Your task to perform on an android device: turn off translation in the chrome app Image 0: 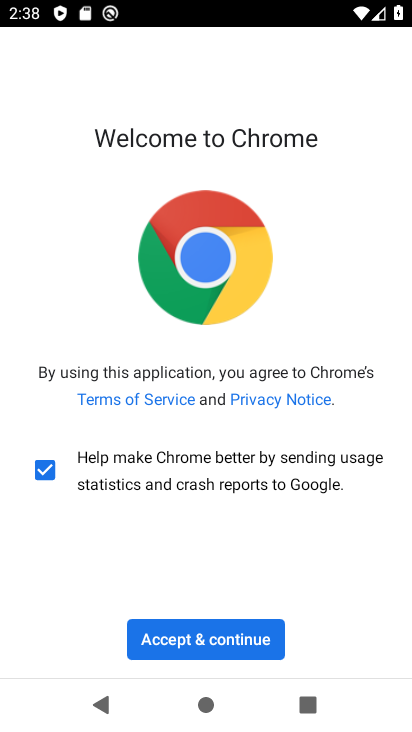
Step 0: click (267, 637)
Your task to perform on an android device: turn off translation in the chrome app Image 1: 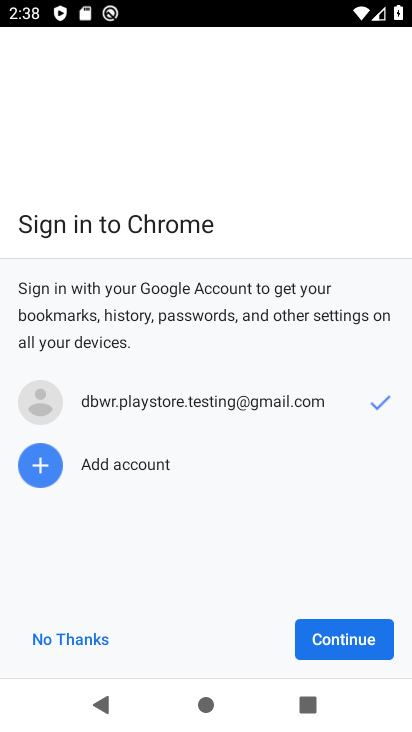
Step 1: click (331, 634)
Your task to perform on an android device: turn off translation in the chrome app Image 2: 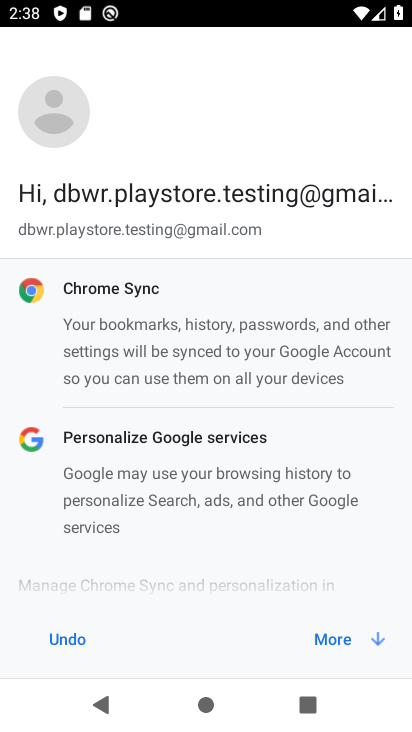
Step 2: click (331, 634)
Your task to perform on an android device: turn off translation in the chrome app Image 3: 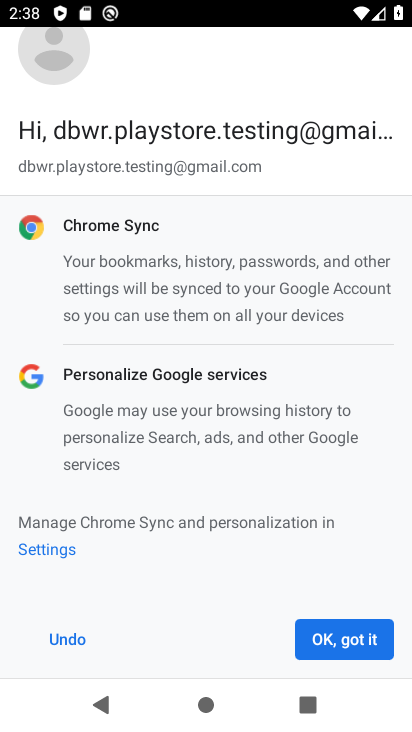
Step 3: click (331, 633)
Your task to perform on an android device: turn off translation in the chrome app Image 4: 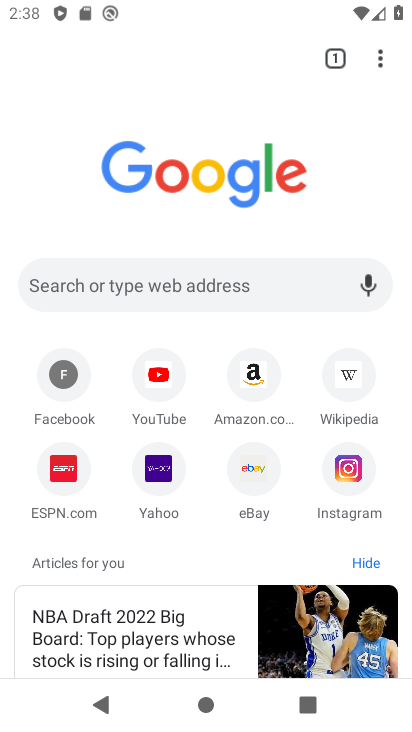
Step 4: click (377, 50)
Your task to perform on an android device: turn off translation in the chrome app Image 5: 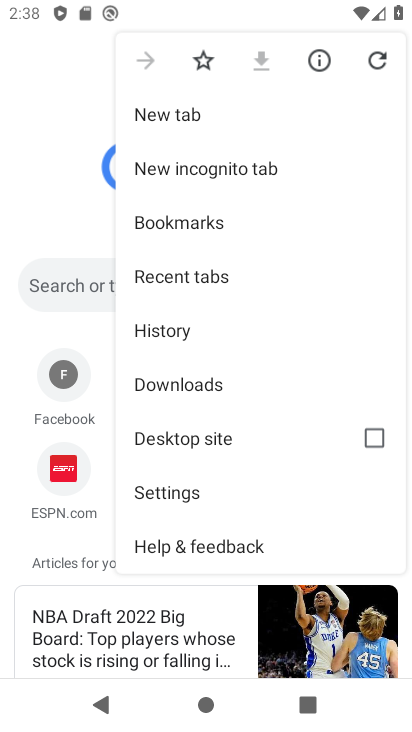
Step 5: click (185, 488)
Your task to perform on an android device: turn off translation in the chrome app Image 6: 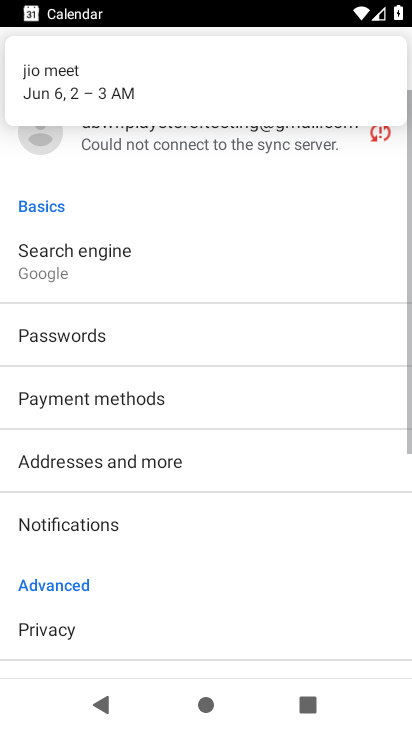
Step 6: drag from (182, 565) to (191, 192)
Your task to perform on an android device: turn off translation in the chrome app Image 7: 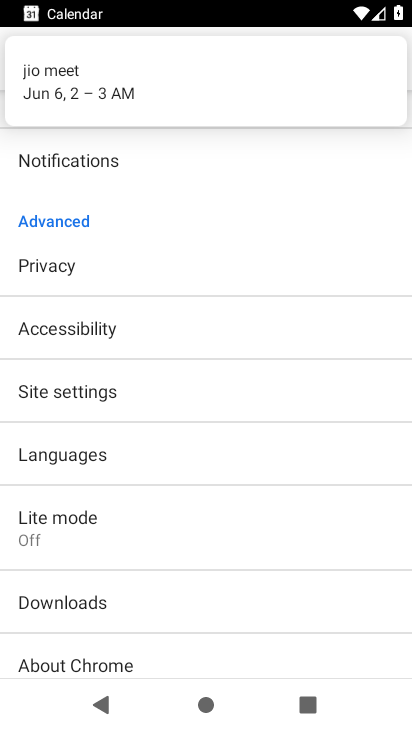
Step 7: click (172, 452)
Your task to perform on an android device: turn off translation in the chrome app Image 8: 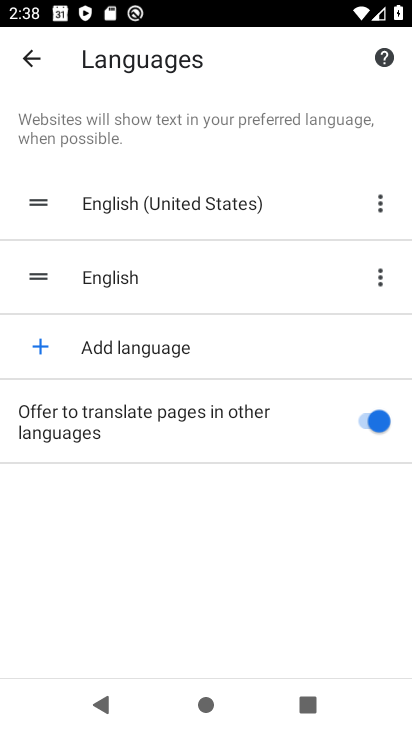
Step 8: click (357, 420)
Your task to perform on an android device: turn off translation in the chrome app Image 9: 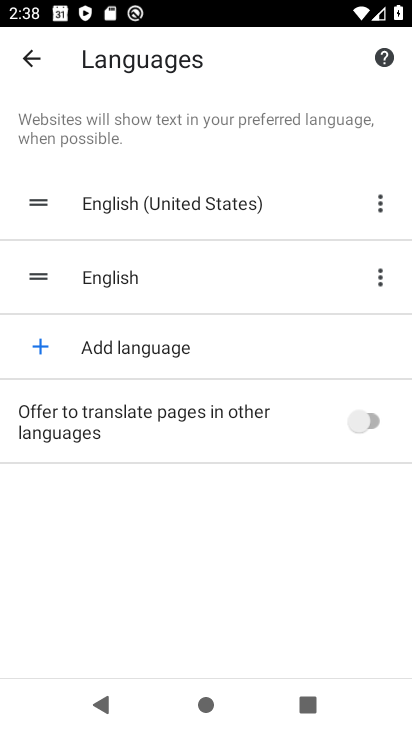
Step 9: task complete